Your task to perform on an android device: Do I have any events tomorrow? Image 0: 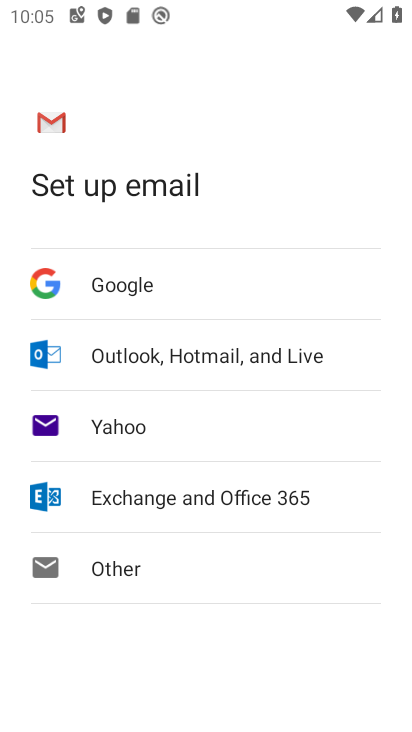
Step 0: press home button
Your task to perform on an android device: Do I have any events tomorrow? Image 1: 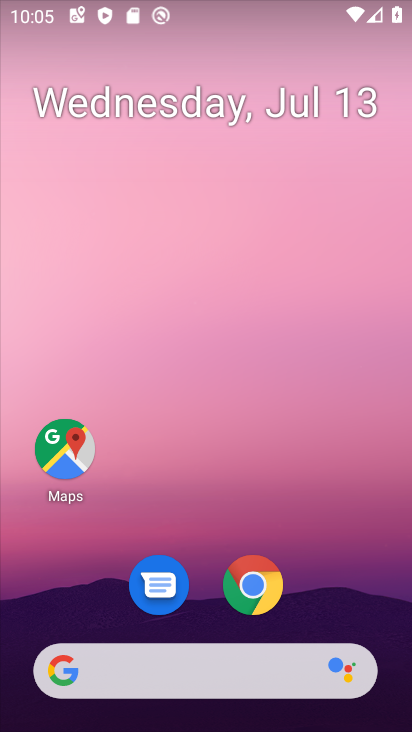
Step 1: drag from (326, 543) to (324, 84)
Your task to perform on an android device: Do I have any events tomorrow? Image 2: 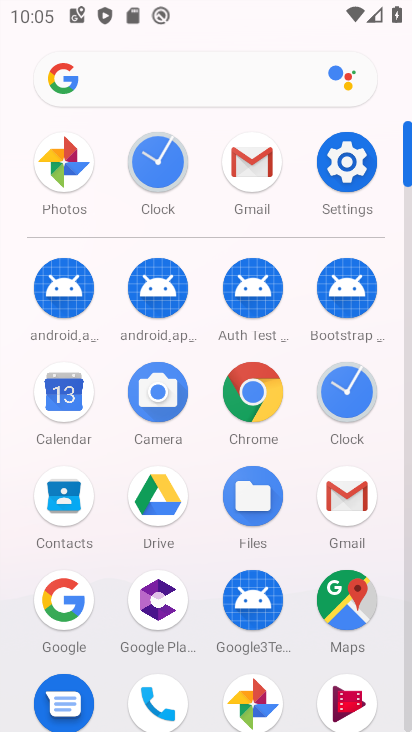
Step 2: click (74, 400)
Your task to perform on an android device: Do I have any events tomorrow? Image 3: 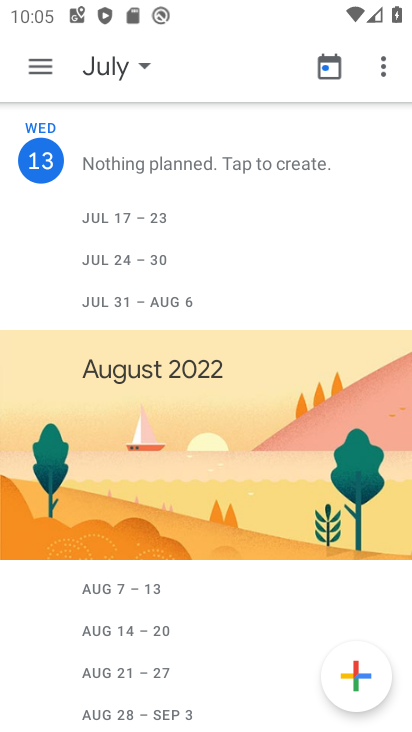
Step 3: click (44, 72)
Your task to perform on an android device: Do I have any events tomorrow? Image 4: 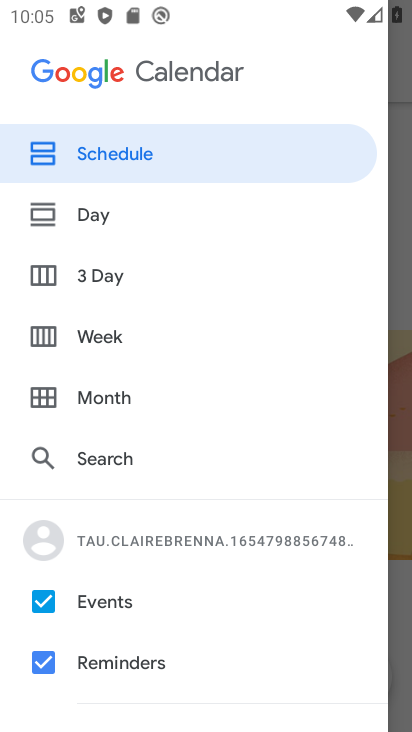
Step 4: click (49, 268)
Your task to perform on an android device: Do I have any events tomorrow? Image 5: 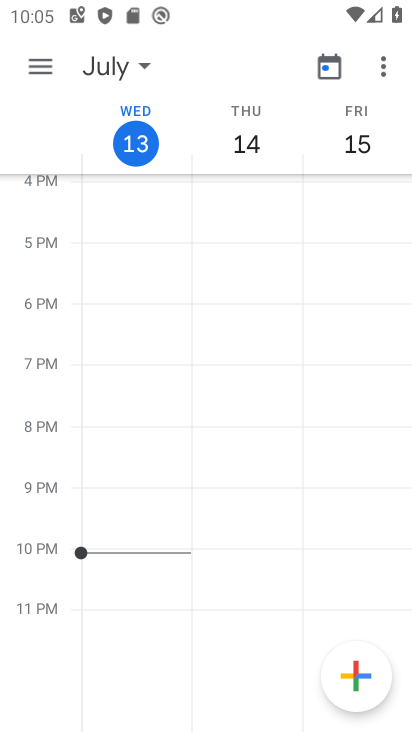
Step 5: task complete